Your task to perform on an android device: What is the recent news? Image 0: 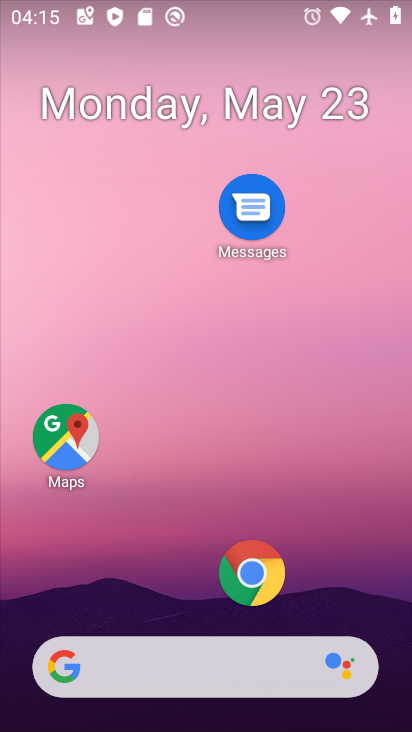
Step 0: drag from (312, 646) to (329, 1)
Your task to perform on an android device: What is the recent news? Image 1: 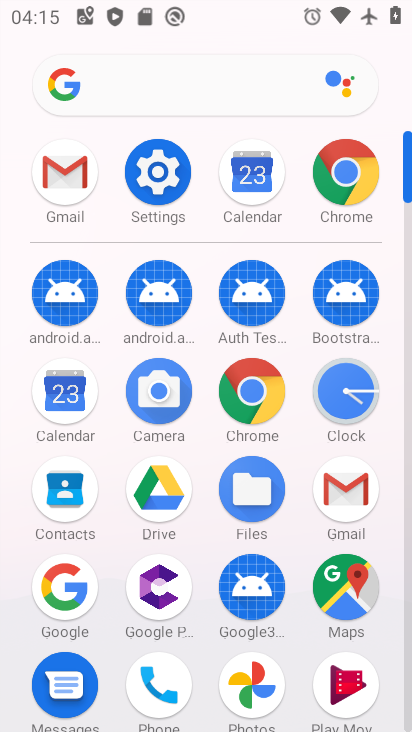
Step 1: click (235, 386)
Your task to perform on an android device: What is the recent news? Image 2: 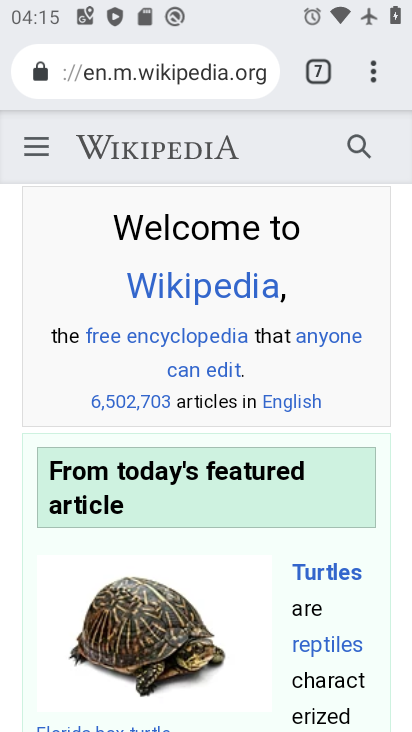
Step 2: click (126, 60)
Your task to perform on an android device: What is the recent news? Image 3: 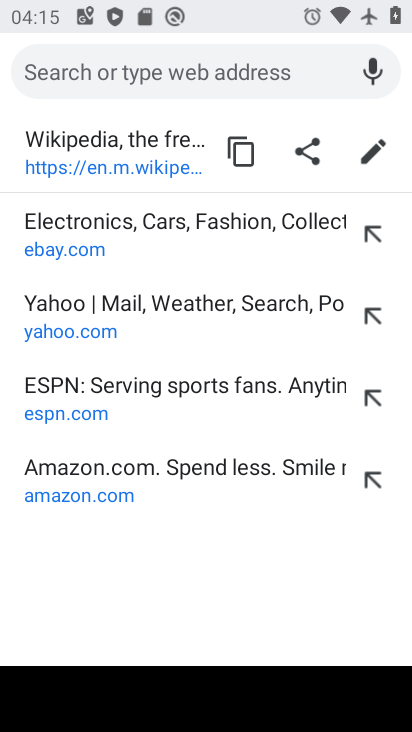
Step 3: type "recent news"
Your task to perform on an android device: What is the recent news? Image 4: 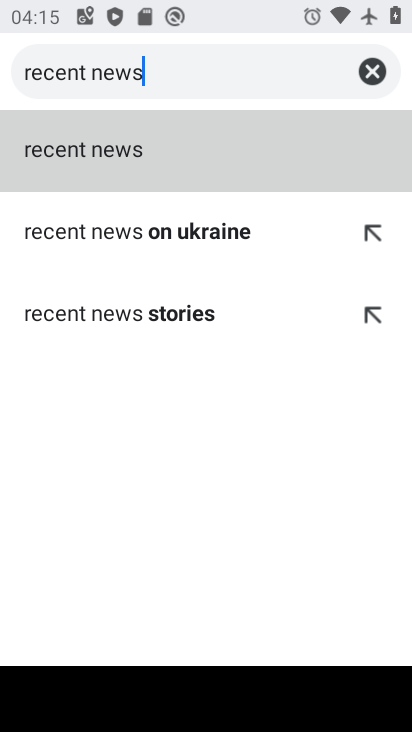
Step 4: click (159, 130)
Your task to perform on an android device: What is the recent news? Image 5: 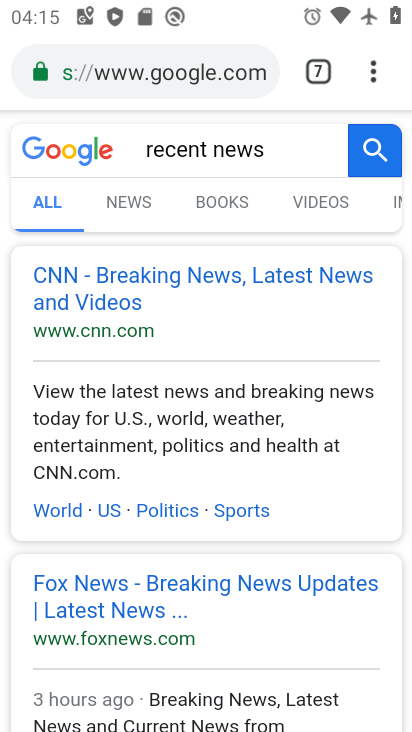
Step 5: task complete